Your task to perform on an android device: Open calendar and show me the second week of next month Image 0: 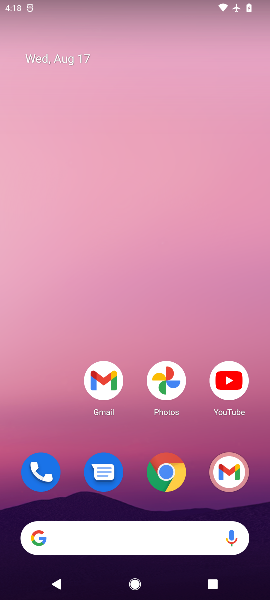
Step 0: drag from (114, 457) to (59, 1)
Your task to perform on an android device: Open calendar and show me the second week of next month Image 1: 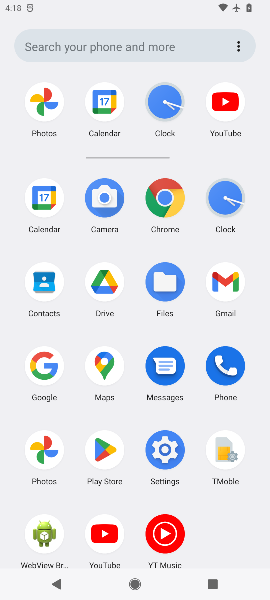
Step 1: click (53, 196)
Your task to perform on an android device: Open calendar and show me the second week of next month Image 2: 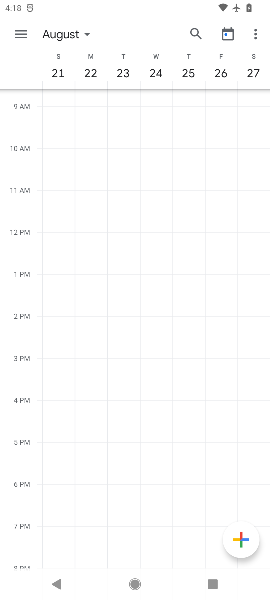
Step 2: task complete